Your task to perform on an android device: turn notification dots off Image 0: 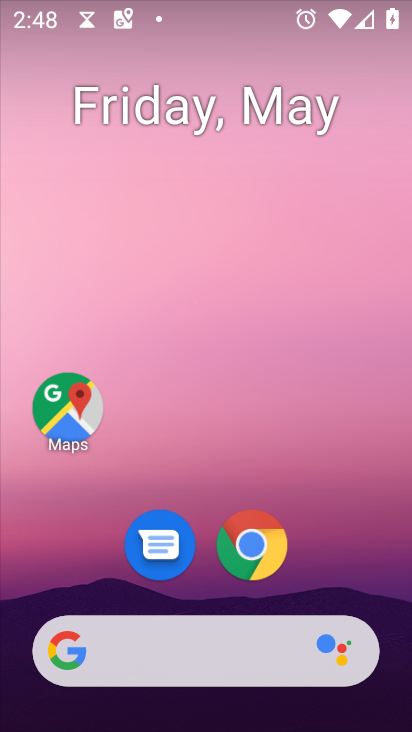
Step 0: drag from (343, 564) to (265, 60)
Your task to perform on an android device: turn notification dots off Image 1: 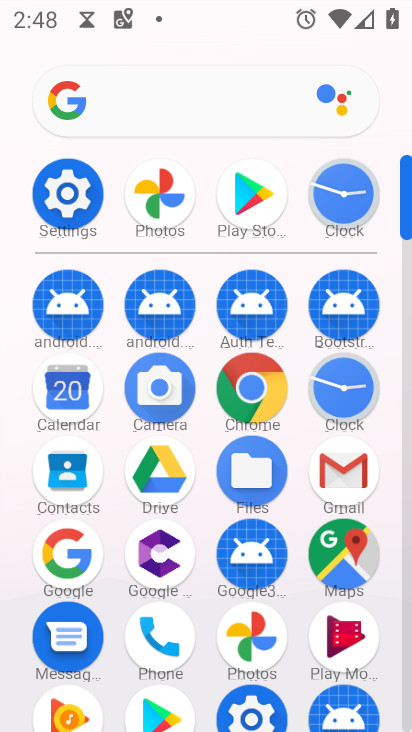
Step 1: click (71, 188)
Your task to perform on an android device: turn notification dots off Image 2: 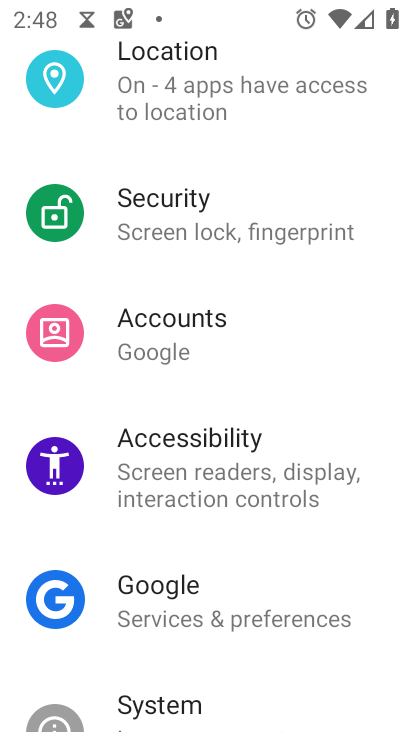
Step 2: drag from (329, 212) to (305, 521)
Your task to perform on an android device: turn notification dots off Image 3: 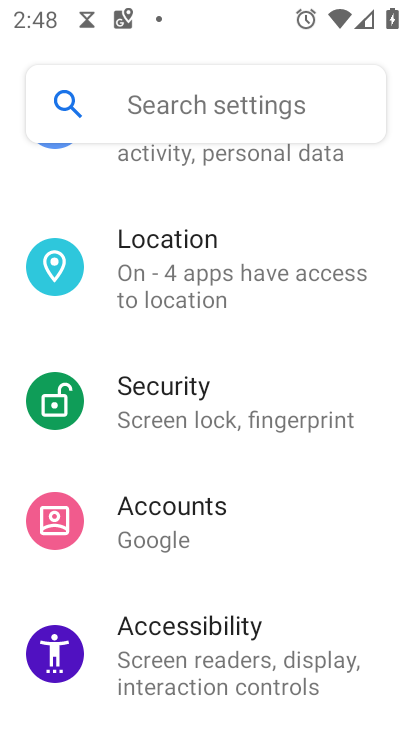
Step 3: drag from (327, 268) to (304, 632)
Your task to perform on an android device: turn notification dots off Image 4: 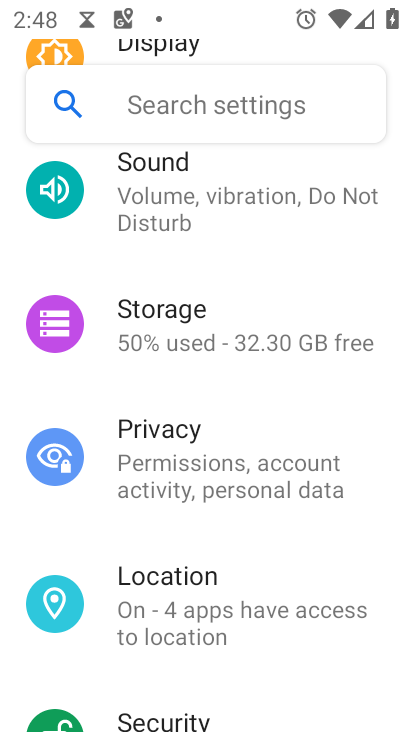
Step 4: drag from (296, 299) to (314, 728)
Your task to perform on an android device: turn notification dots off Image 5: 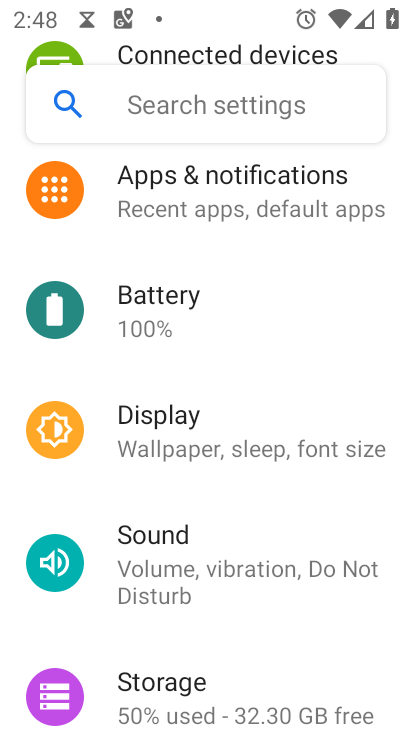
Step 5: drag from (312, 446) to (286, 718)
Your task to perform on an android device: turn notification dots off Image 6: 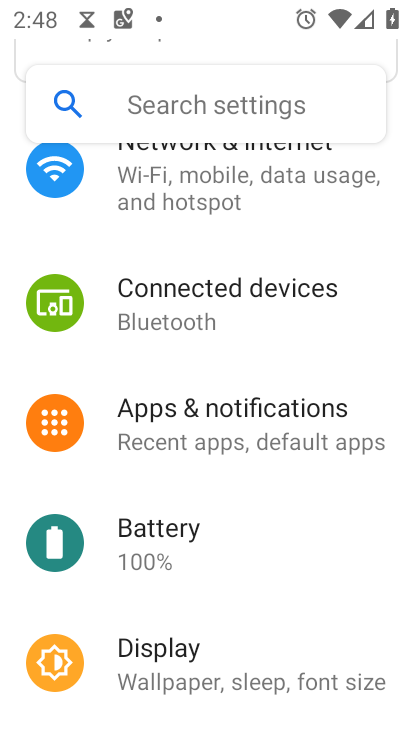
Step 6: click (277, 442)
Your task to perform on an android device: turn notification dots off Image 7: 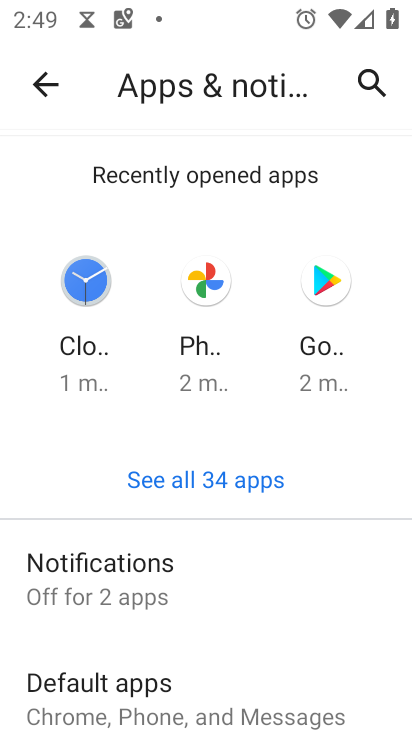
Step 7: drag from (297, 669) to (275, 344)
Your task to perform on an android device: turn notification dots off Image 8: 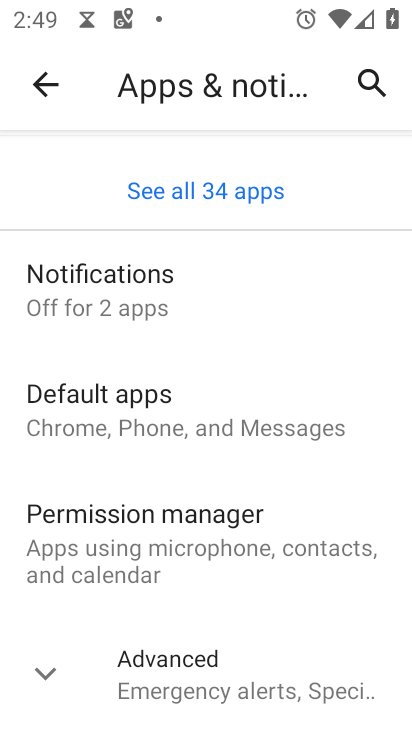
Step 8: click (151, 305)
Your task to perform on an android device: turn notification dots off Image 9: 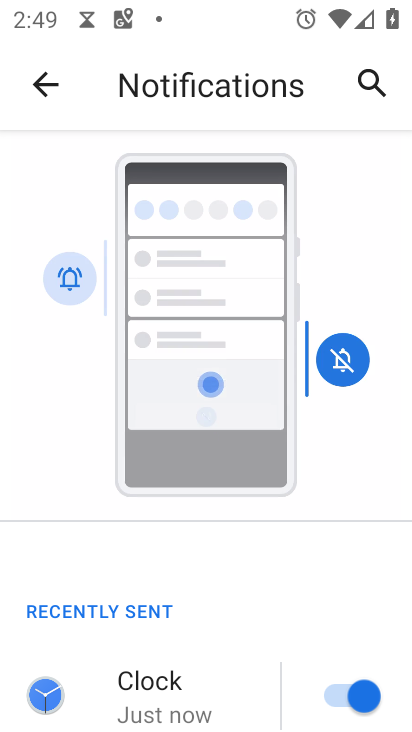
Step 9: drag from (272, 663) to (235, 292)
Your task to perform on an android device: turn notification dots off Image 10: 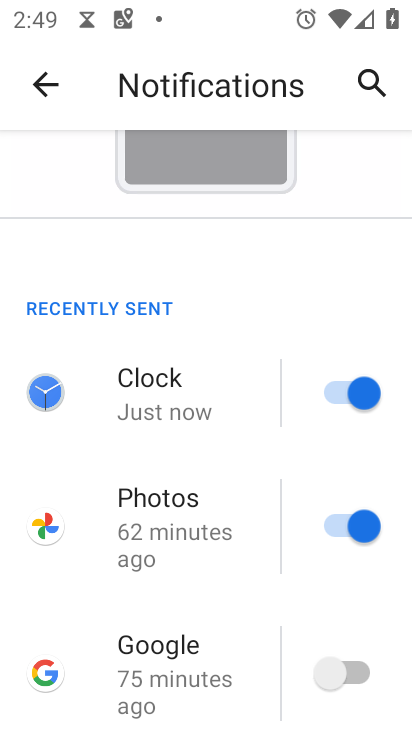
Step 10: drag from (250, 598) to (239, 263)
Your task to perform on an android device: turn notification dots off Image 11: 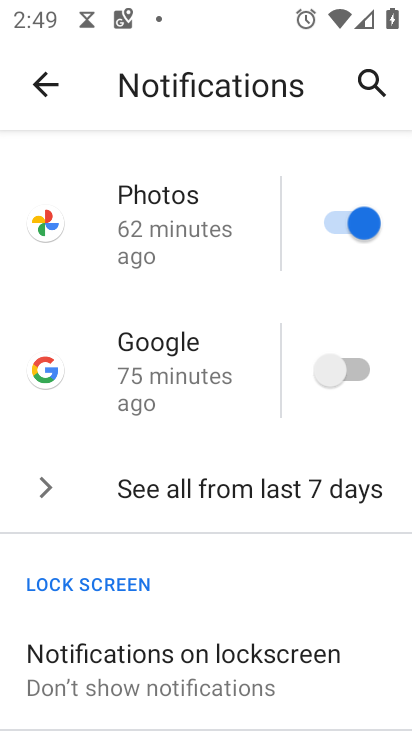
Step 11: drag from (259, 637) to (243, 205)
Your task to perform on an android device: turn notification dots off Image 12: 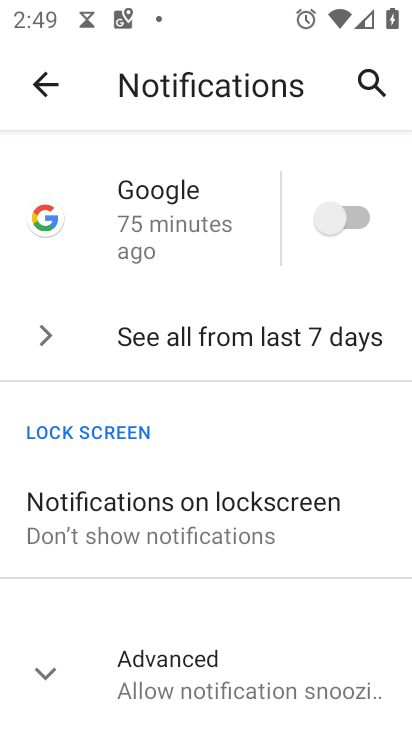
Step 12: click (266, 674)
Your task to perform on an android device: turn notification dots off Image 13: 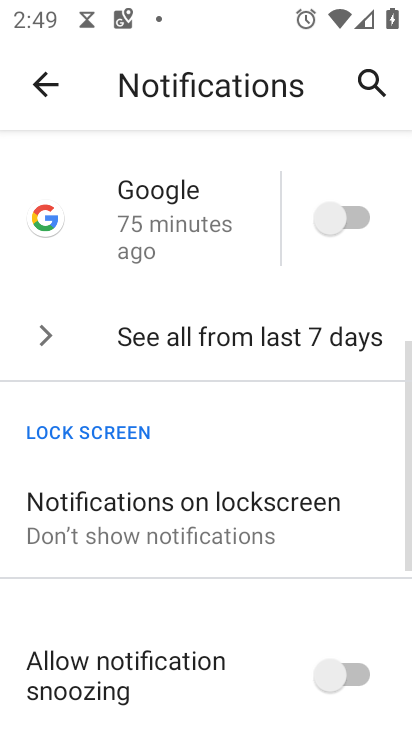
Step 13: task complete